Your task to perform on an android device: Open settings Image 0: 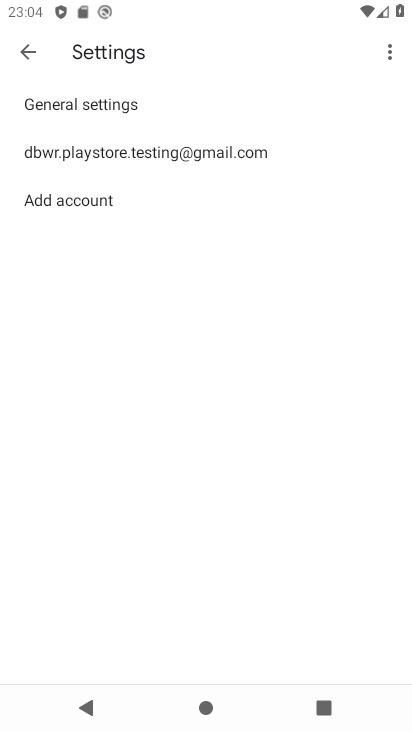
Step 0: press home button
Your task to perform on an android device: Open settings Image 1: 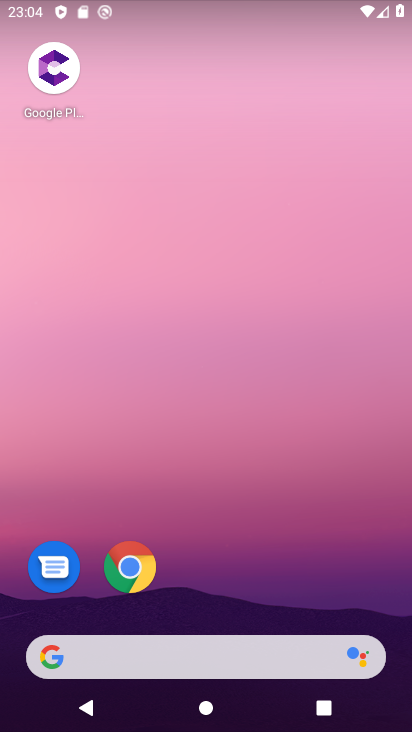
Step 1: drag from (275, 505) to (217, 45)
Your task to perform on an android device: Open settings Image 2: 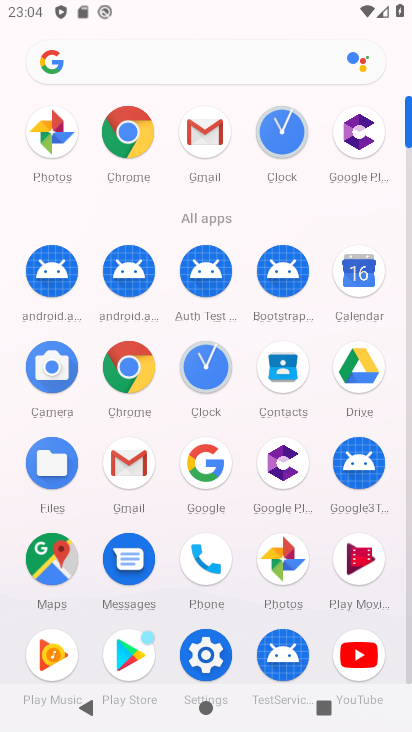
Step 2: click (205, 643)
Your task to perform on an android device: Open settings Image 3: 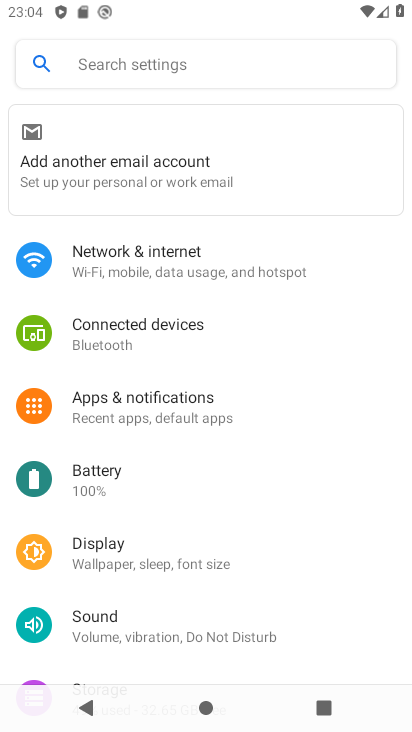
Step 3: task complete